Your task to perform on an android device: Go to Wikipedia Image 0: 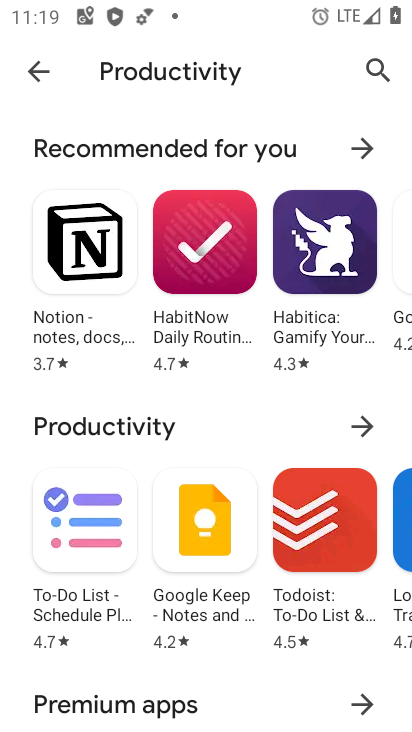
Step 0: press home button
Your task to perform on an android device: Go to Wikipedia Image 1: 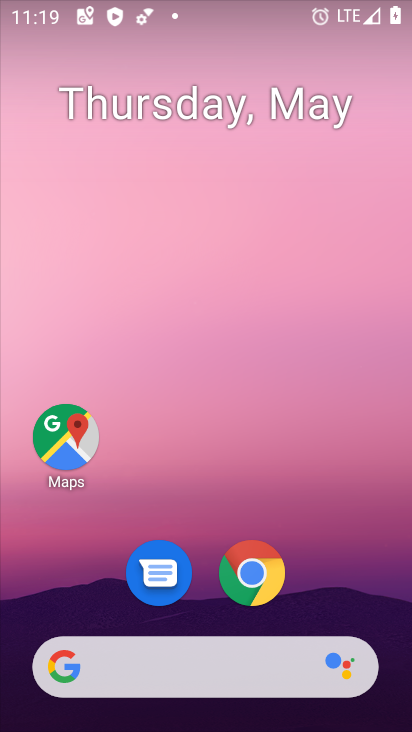
Step 1: click (246, 596)
Your task to perform on an android device: Go to Wikipedia Image 2: 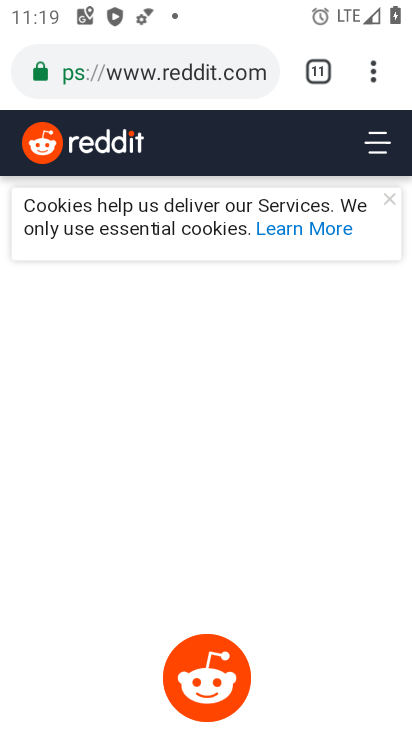
Step 2: click (314, 82)
Your task to perform on an android device: Go to Wikipedia Image 3: 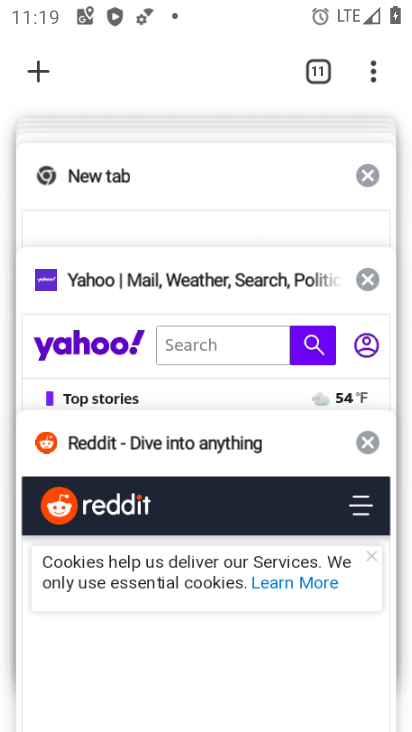
Step 3: click (43, 67)
Your task to perform on an android device: Go to Wikipedia Image 4: 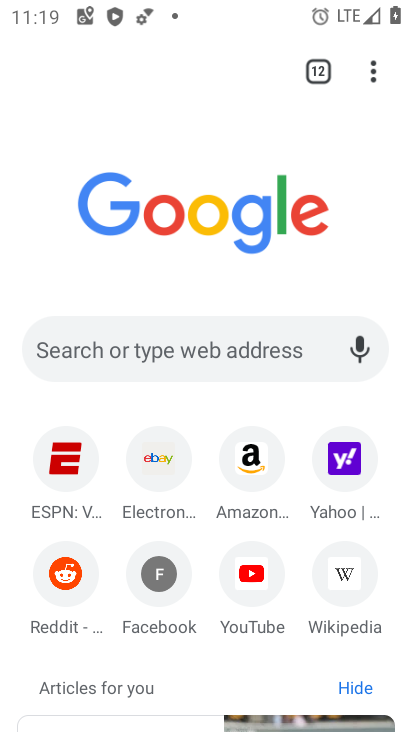
Step 4: click (182, 338)
Your task to perform on an android device: Go to Wikipedia Image 5: 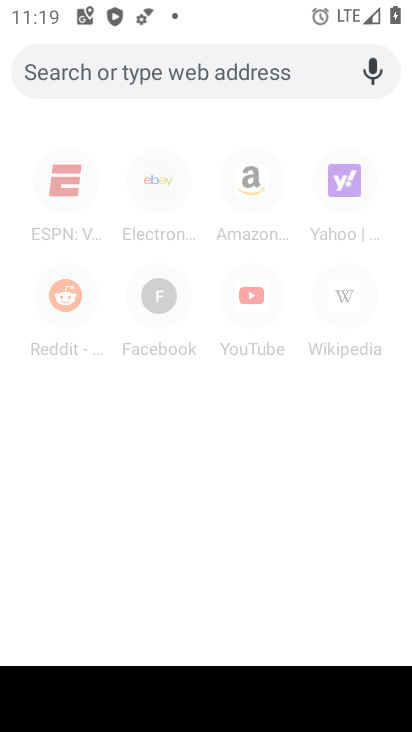
Step 5: type "Wikipedia"
Your task to perform on an android device: Go to Wikipedia Image 6: 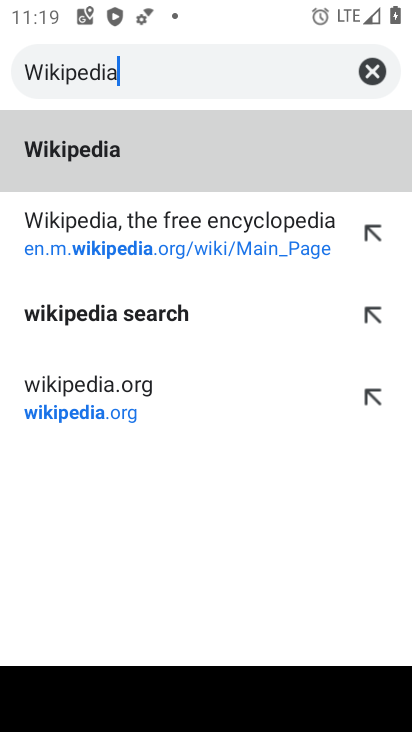
Step 6: click (151, 152)
Your task to perform on an android device: Go to Wikipedia Image 7: 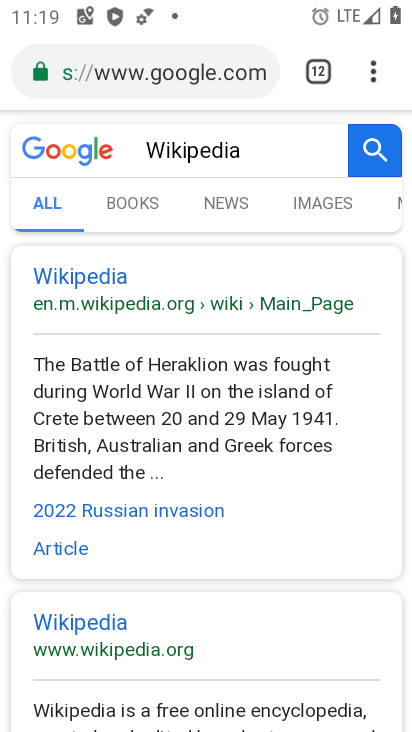
Step 7: click (65, 282)
Your task to perform on an android device: Go to Wikipedia Image 8: 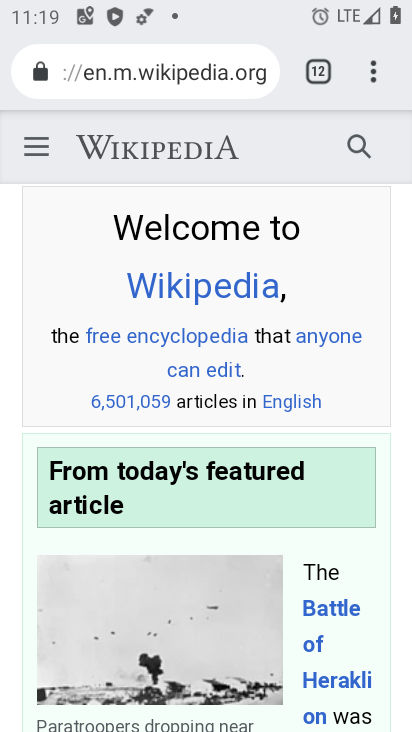
Step 8: task complete